Your task to perform on an android device: Open Google Maps and go to "Timeline" Image 0: 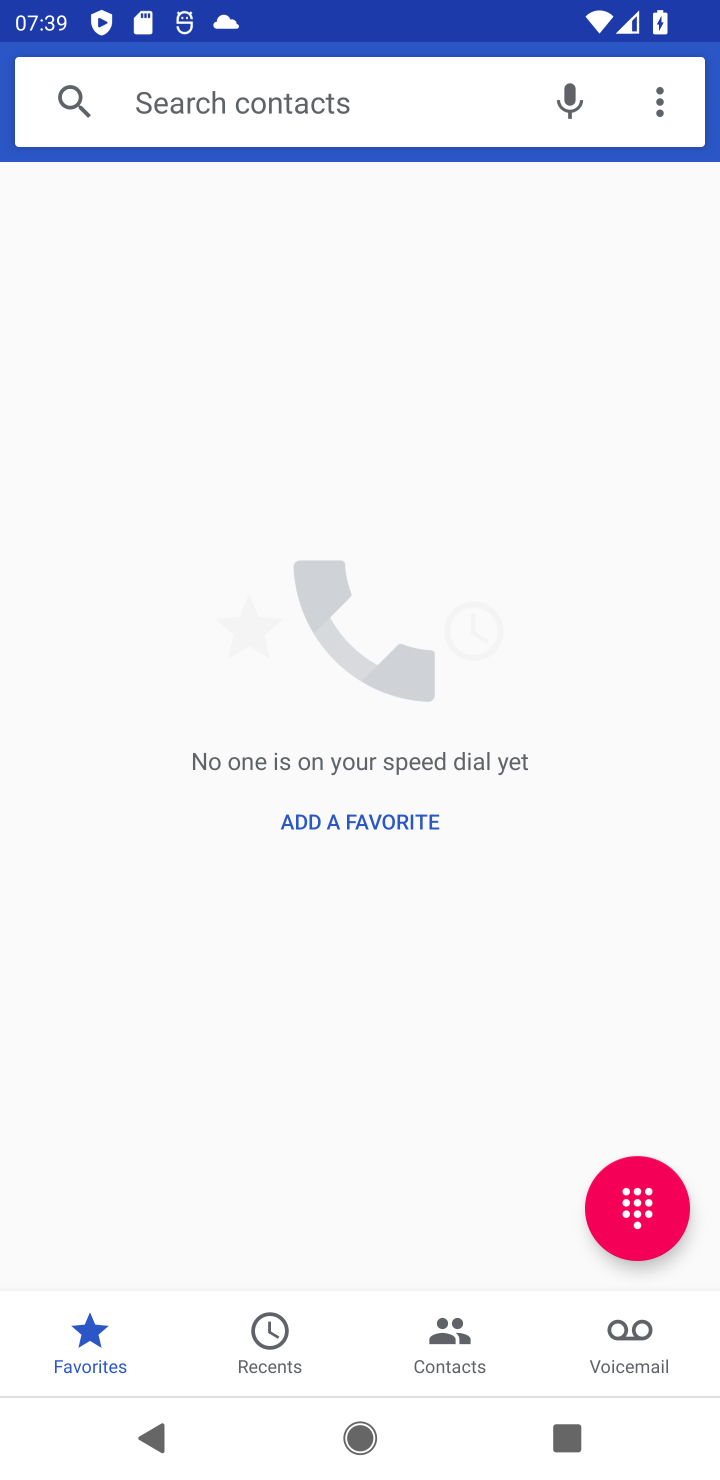
Step 0: press home button
Your task to perform on an android device: Open Google Maps and go to "Timeline" Image 1: 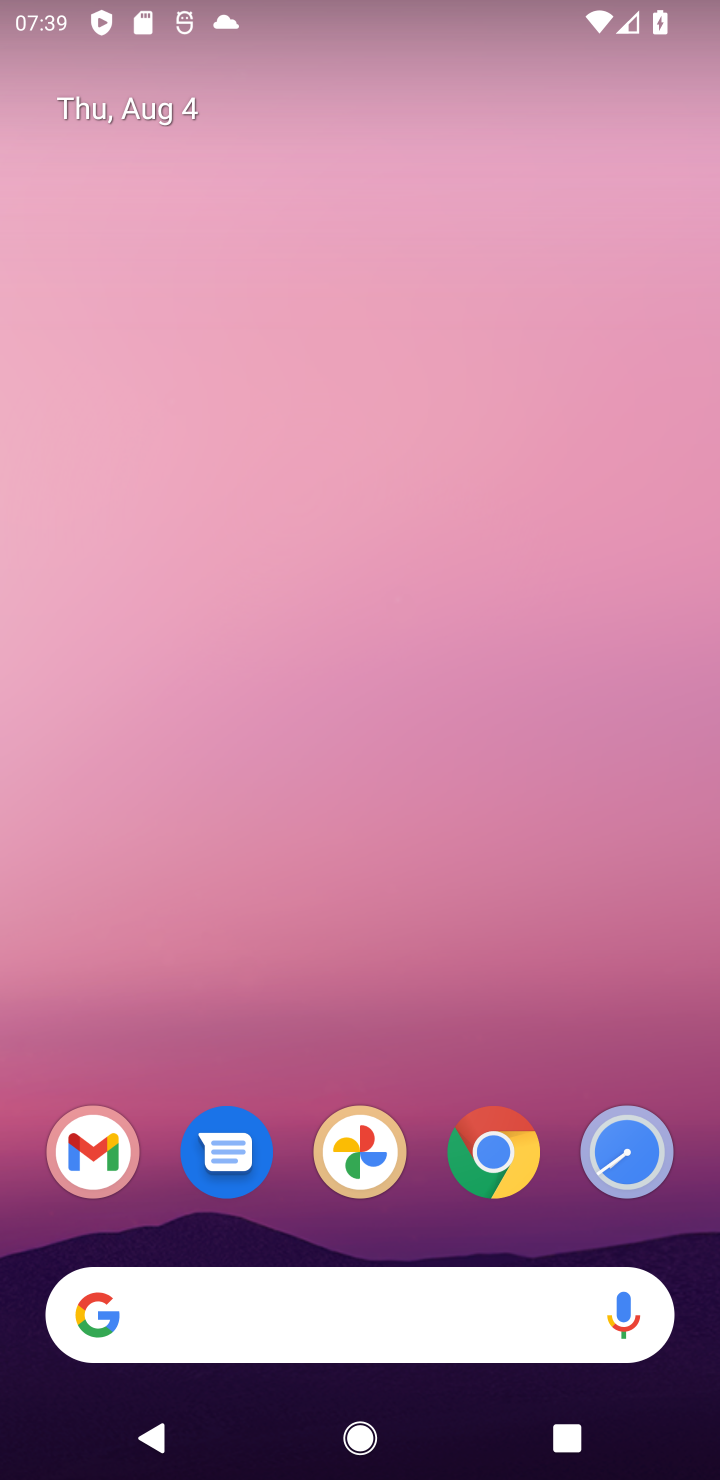
Step 1: drag from (29, 1154) to (301, 243)
Your task to perform on an android device: Open Google Maps and go to "Timeline" Image 2: 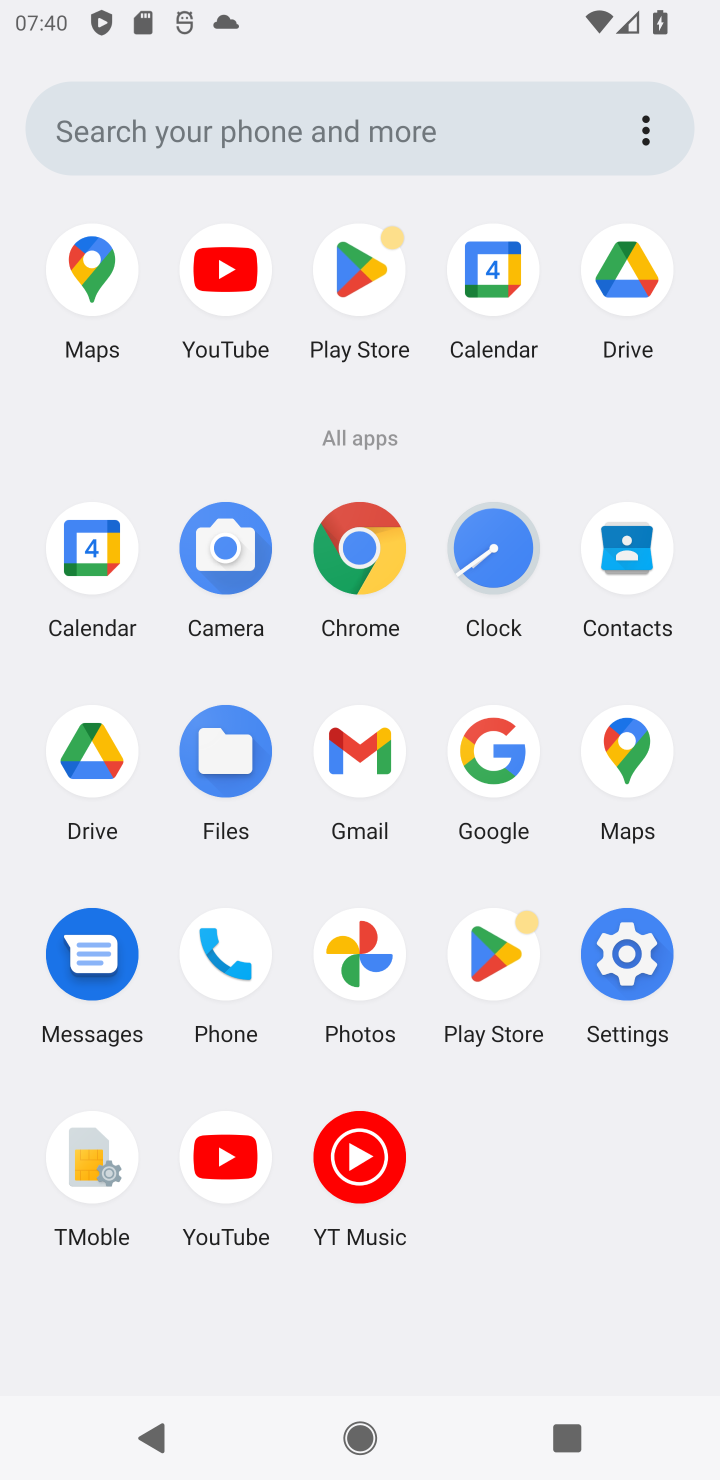
Step 2: click (631, 736)
Your task to perform on an android device: Open Google Maps and go to "Timeline" Image 3: 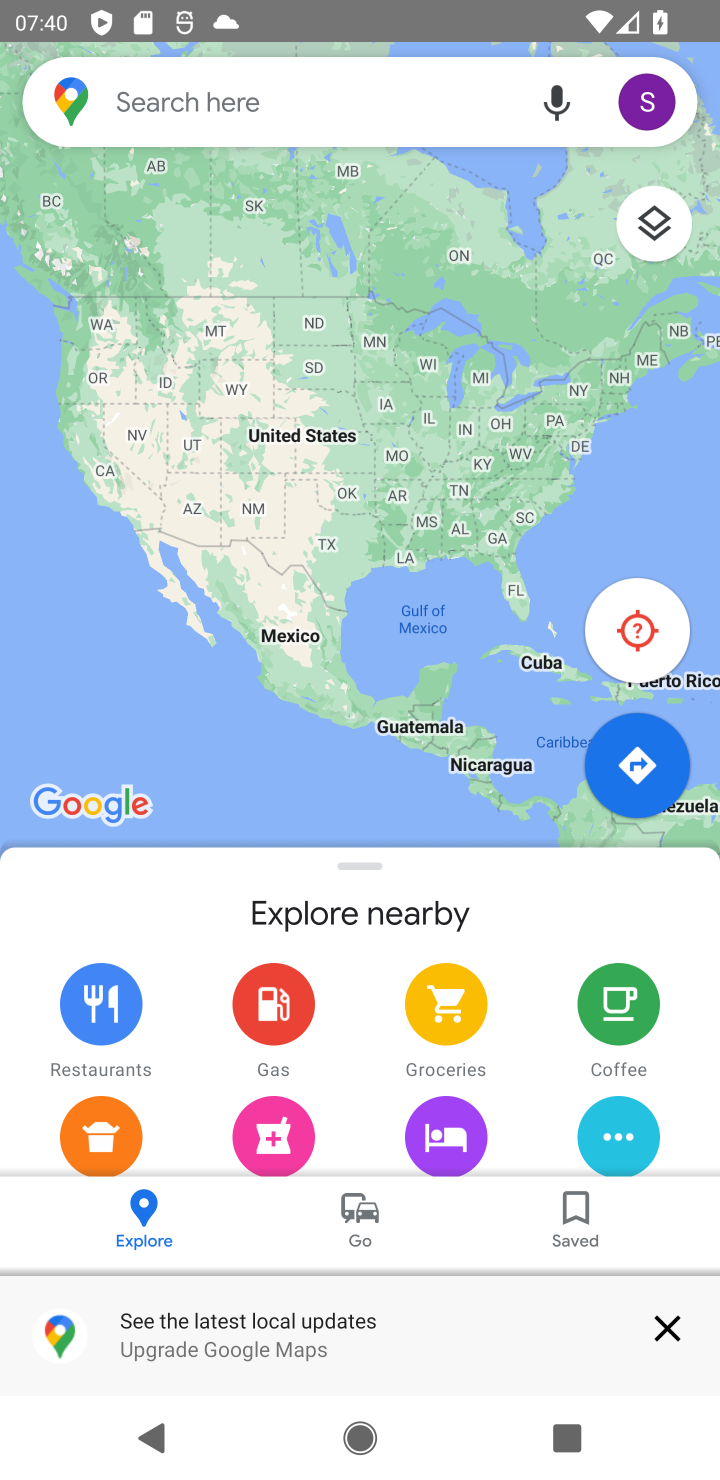
Step 3: click (661, 1336)
Your task to perform on an android device: Open Google Maps and go to "Timeline" Image 4: 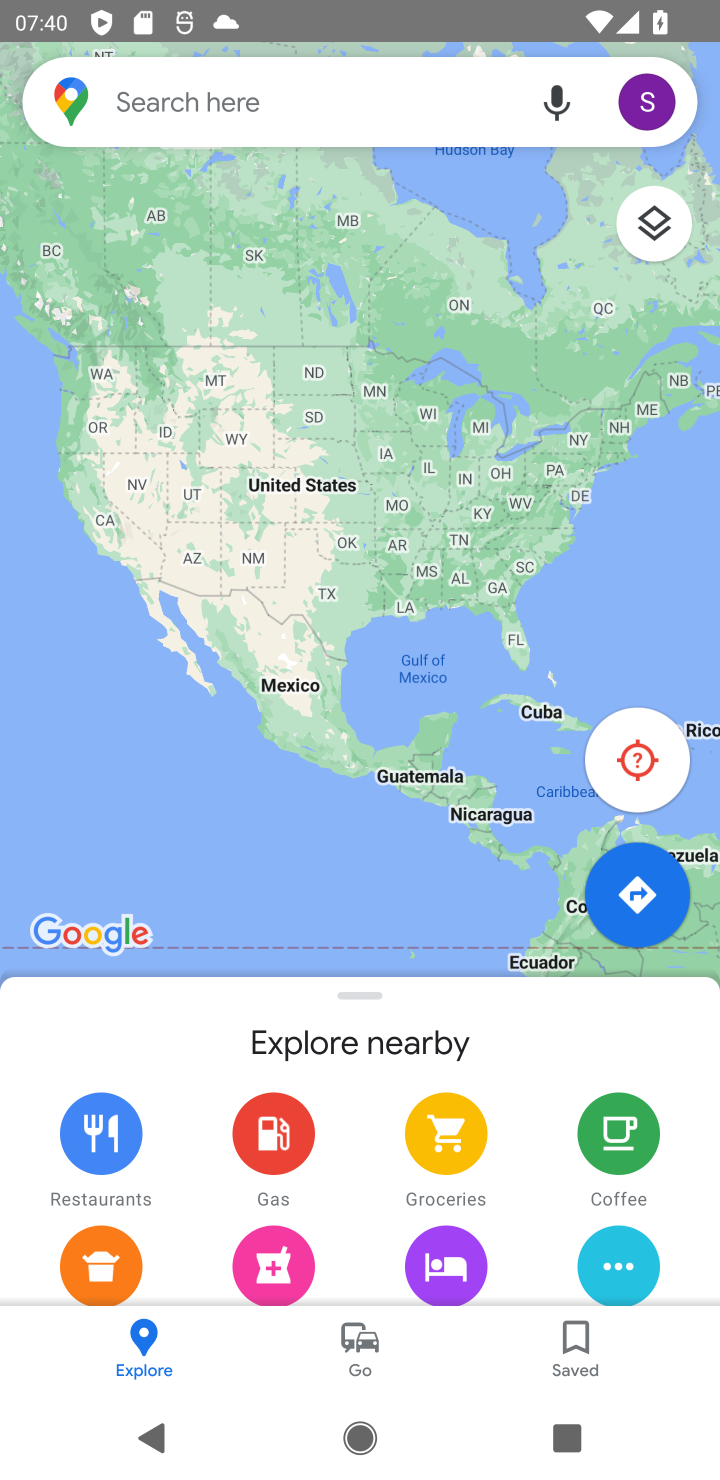
Step 4: click (170, 1451)
Your task to perform on an android device: Open Google Maps and go to "Timeline" Image 5: 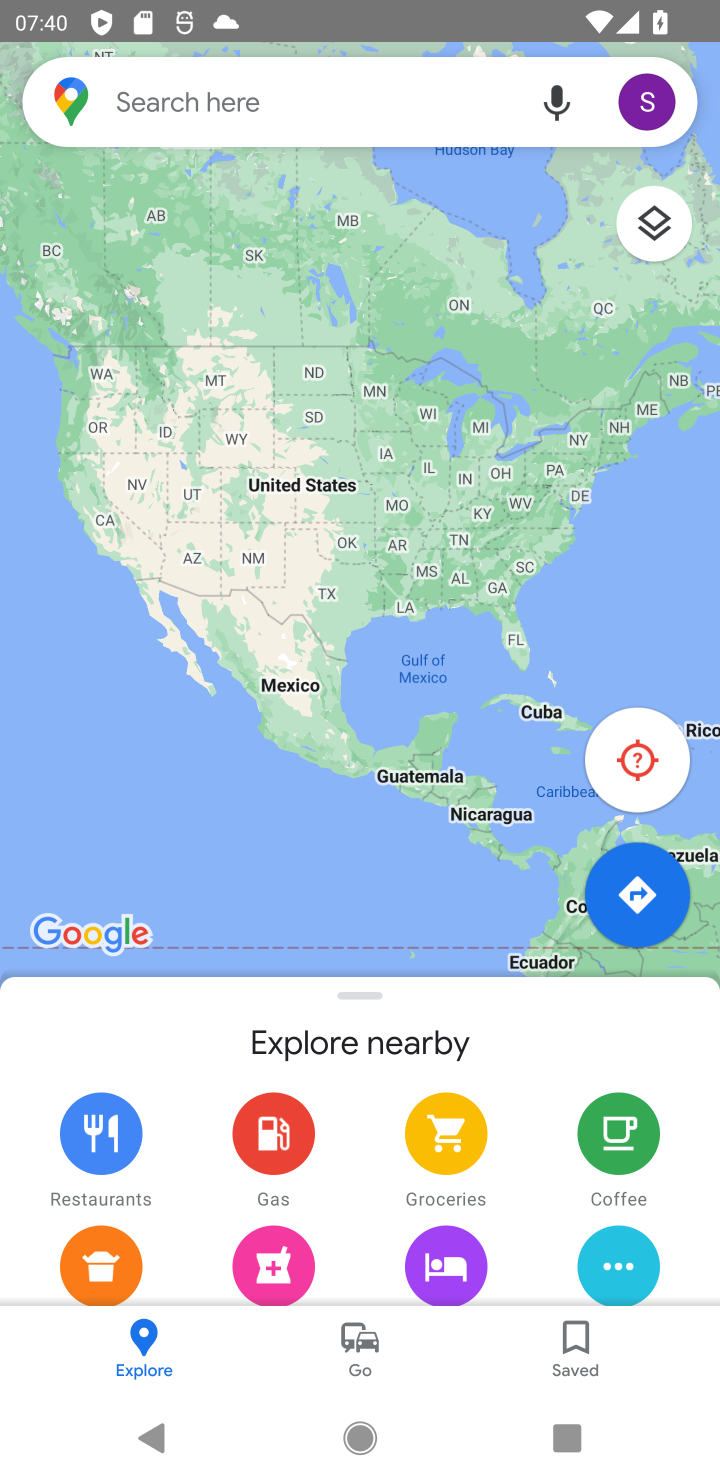
Step 5: click (164, 1449)
Your task to perform on an android device: Open Google Maps and go to "Timeline" Image 6: 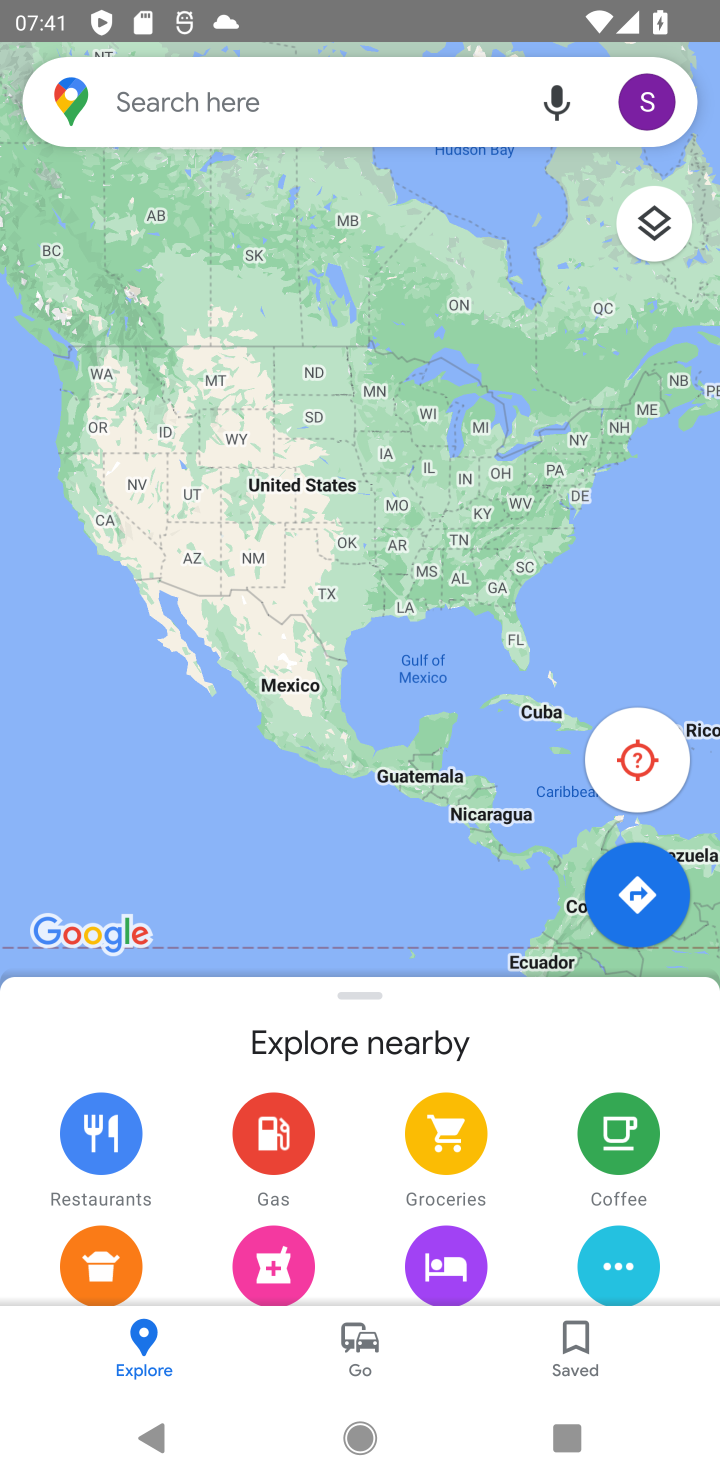
Step 6: click (169, 1444)
Your task to perform on an android device: Open Google Maps and go to "Timeline" Image 7: 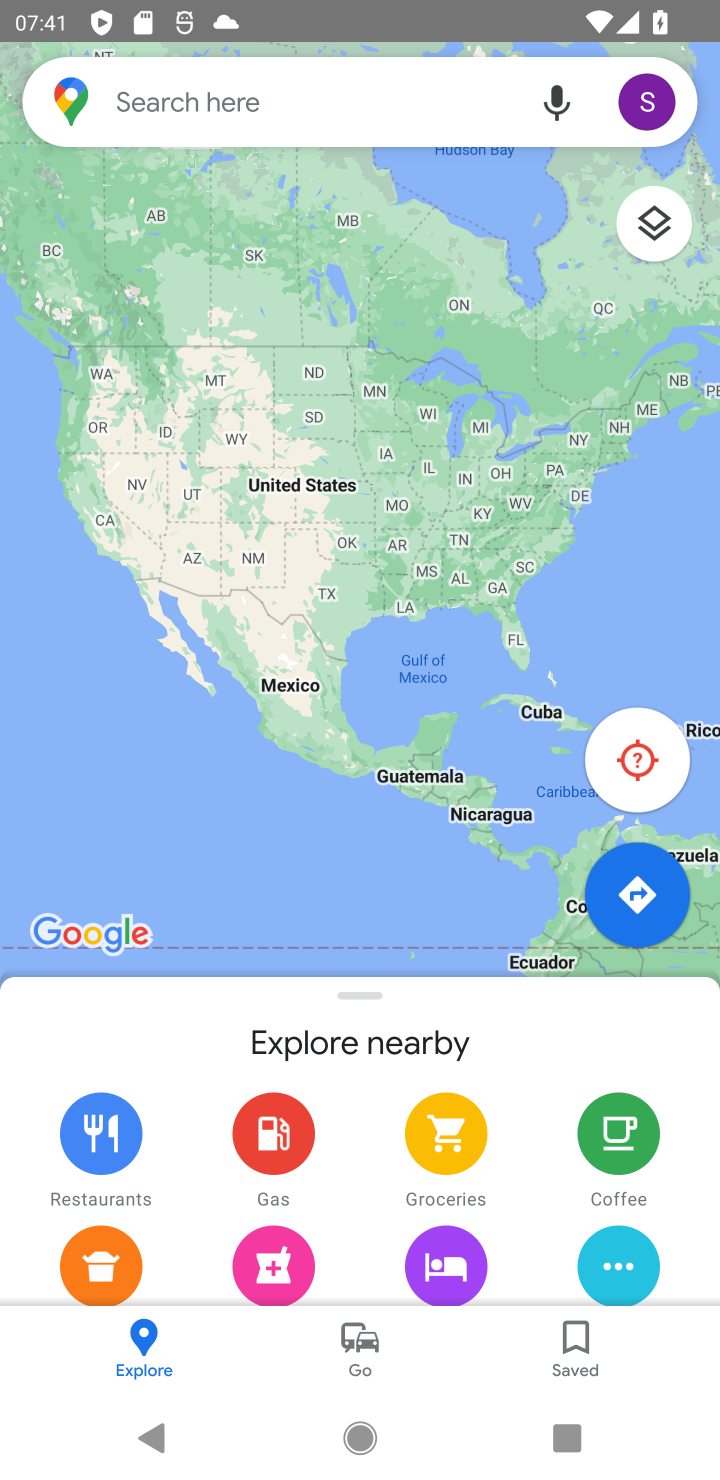
Step 7: click (156, 1454)
Your task to perform on an android device: Open Google Maps and go to "Timeline" Image 8: 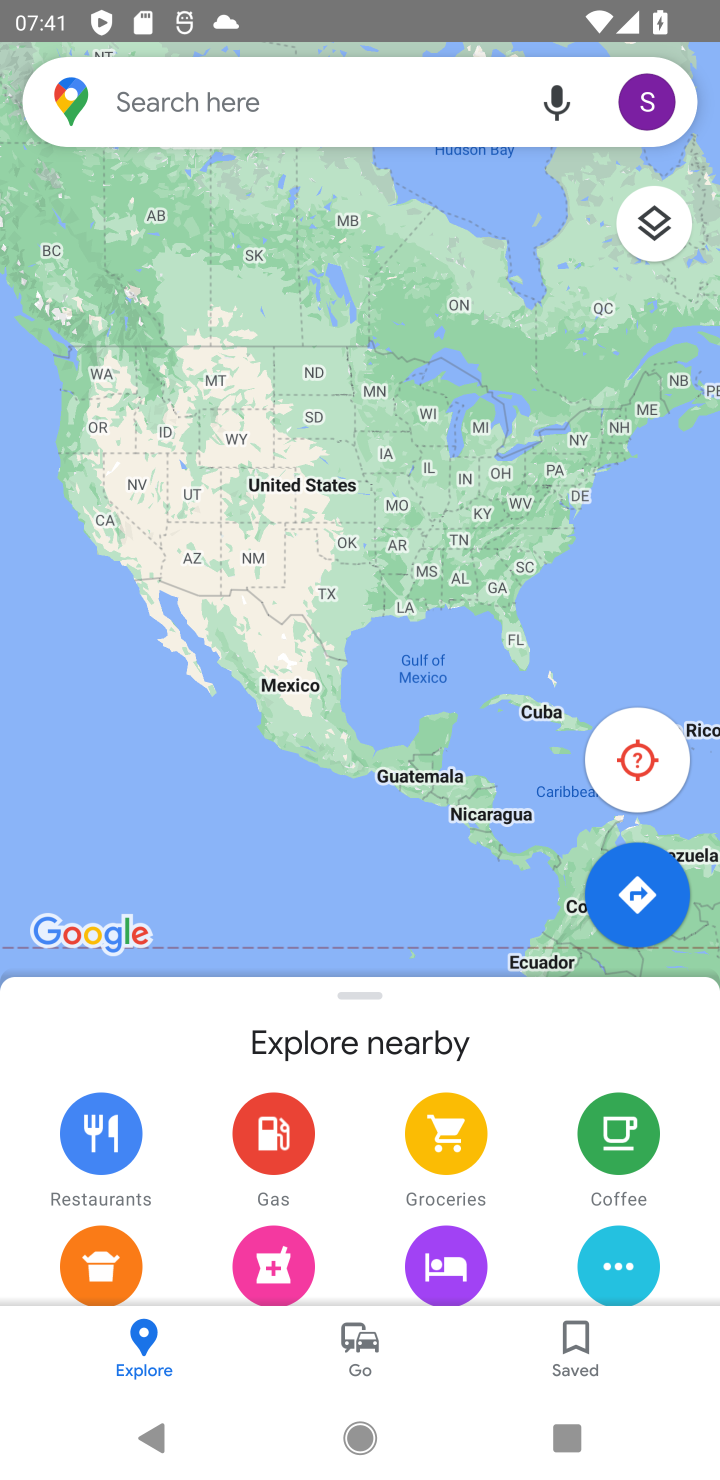
Step 8: click (156, 1454)
Your task to perform on an android device: Open Google Maps and go to "Timeline" Image 9: 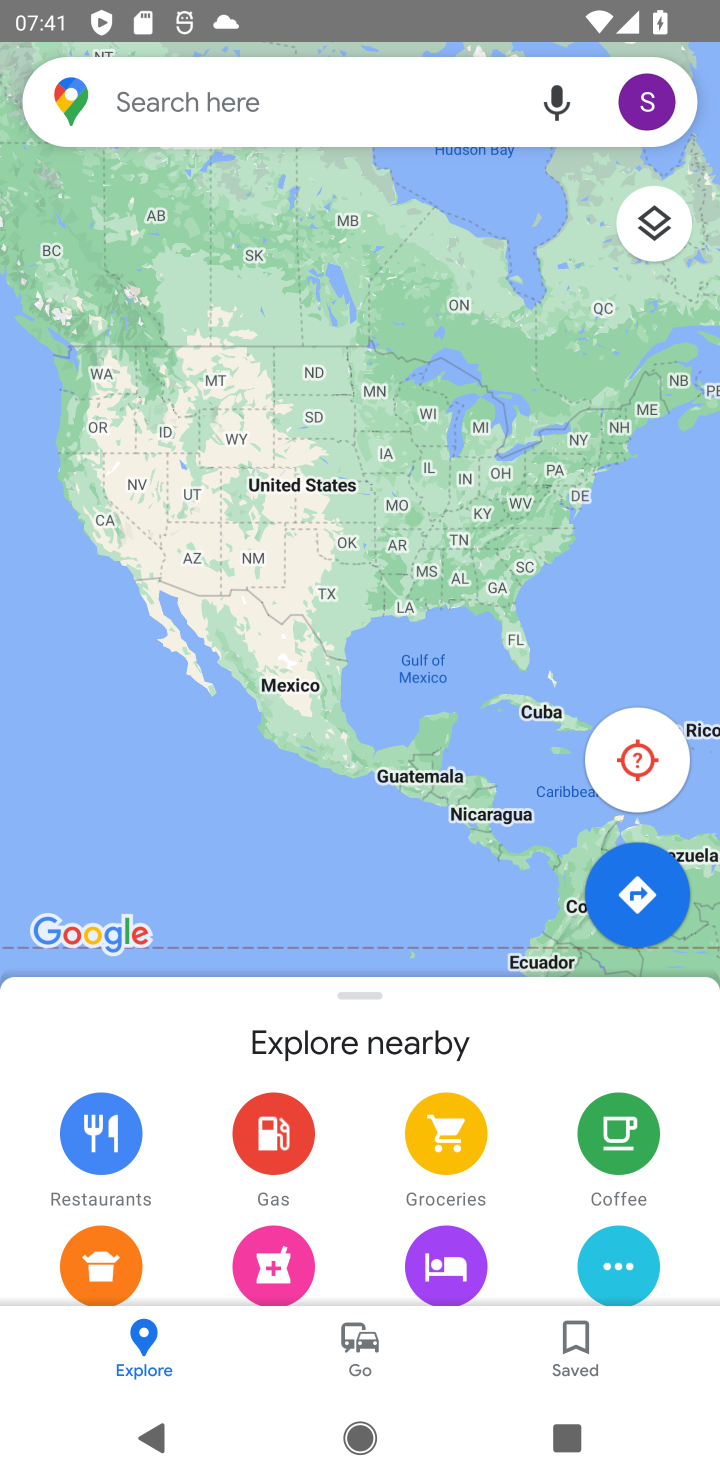
Step 9: press back button
Your task to perform on an android device: Open Google Maps and go to "Timeline" Image 10: 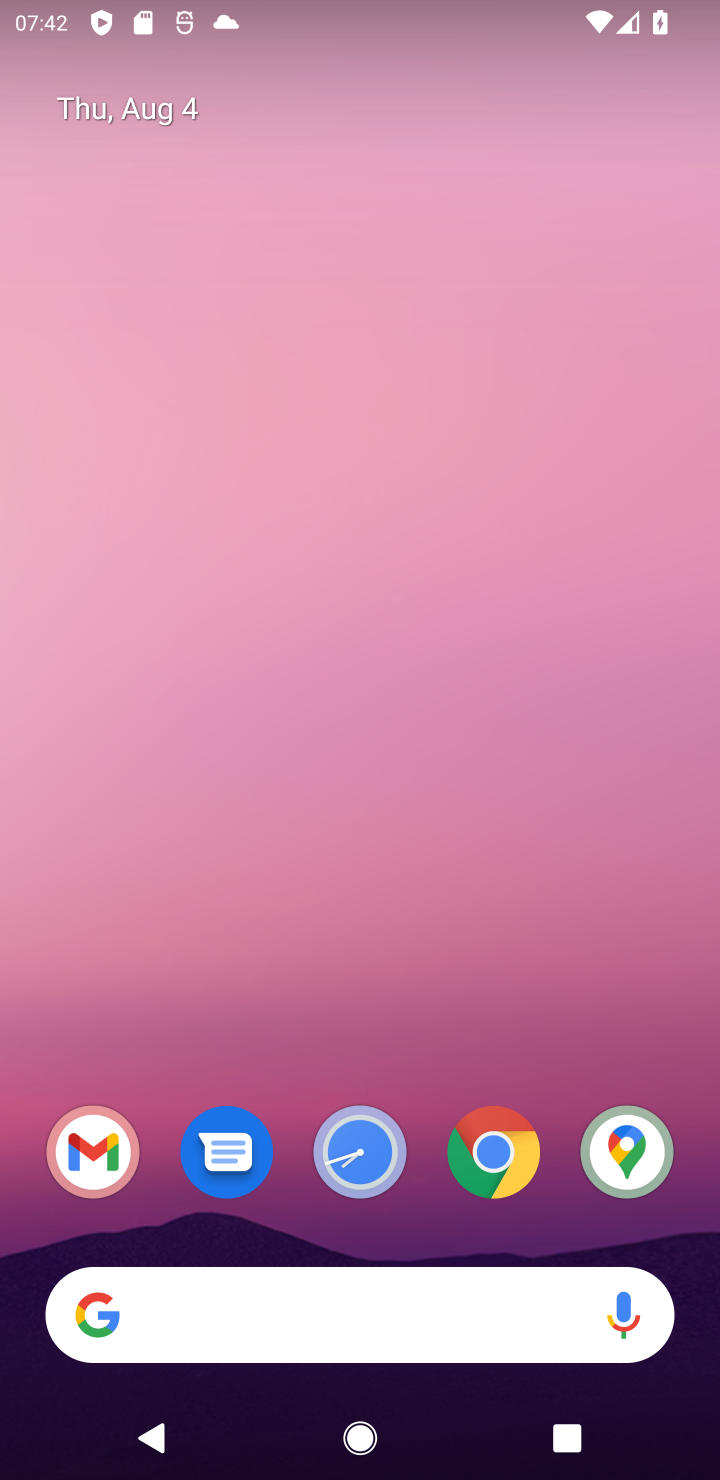
Step 10: click (604, 1137)
Your task to perform on an android device: Open Google Maps and go to "Timeline" Image 11: 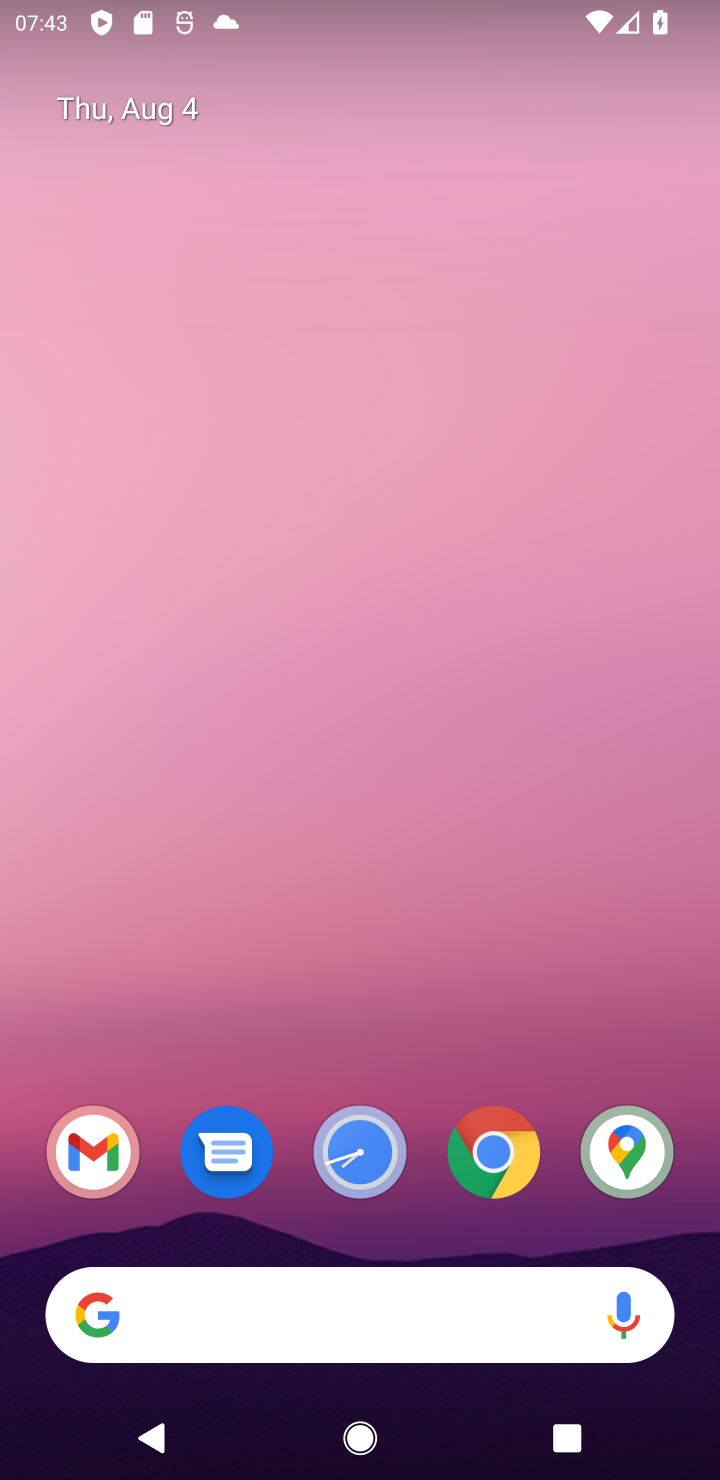
Step 11: click (628, 1139)
Your task to perform on an android device: Open Google Maps and go to "Timeline" Image 12: 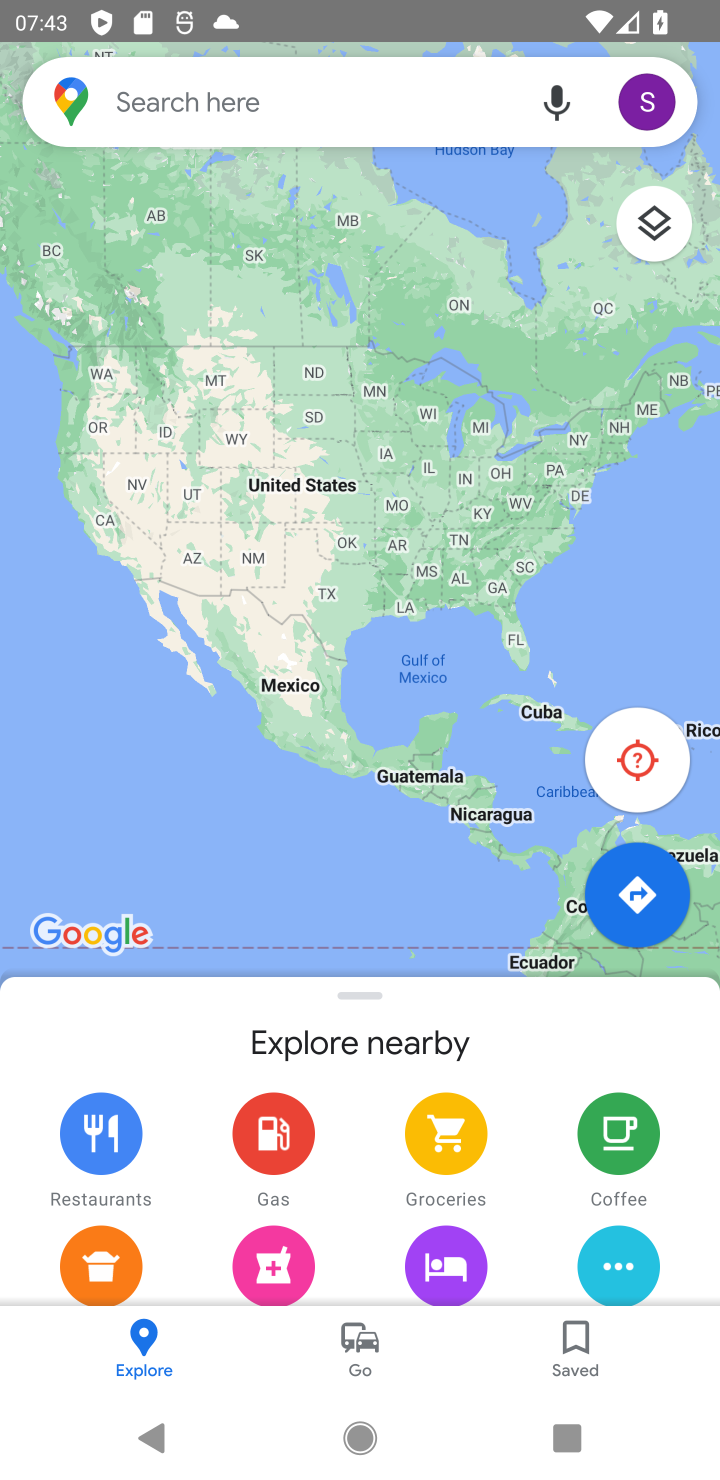
Step 12: click (652, 104)
Your task to perform on an android device: Open Google Maps and go to "Timeline" Image 13: 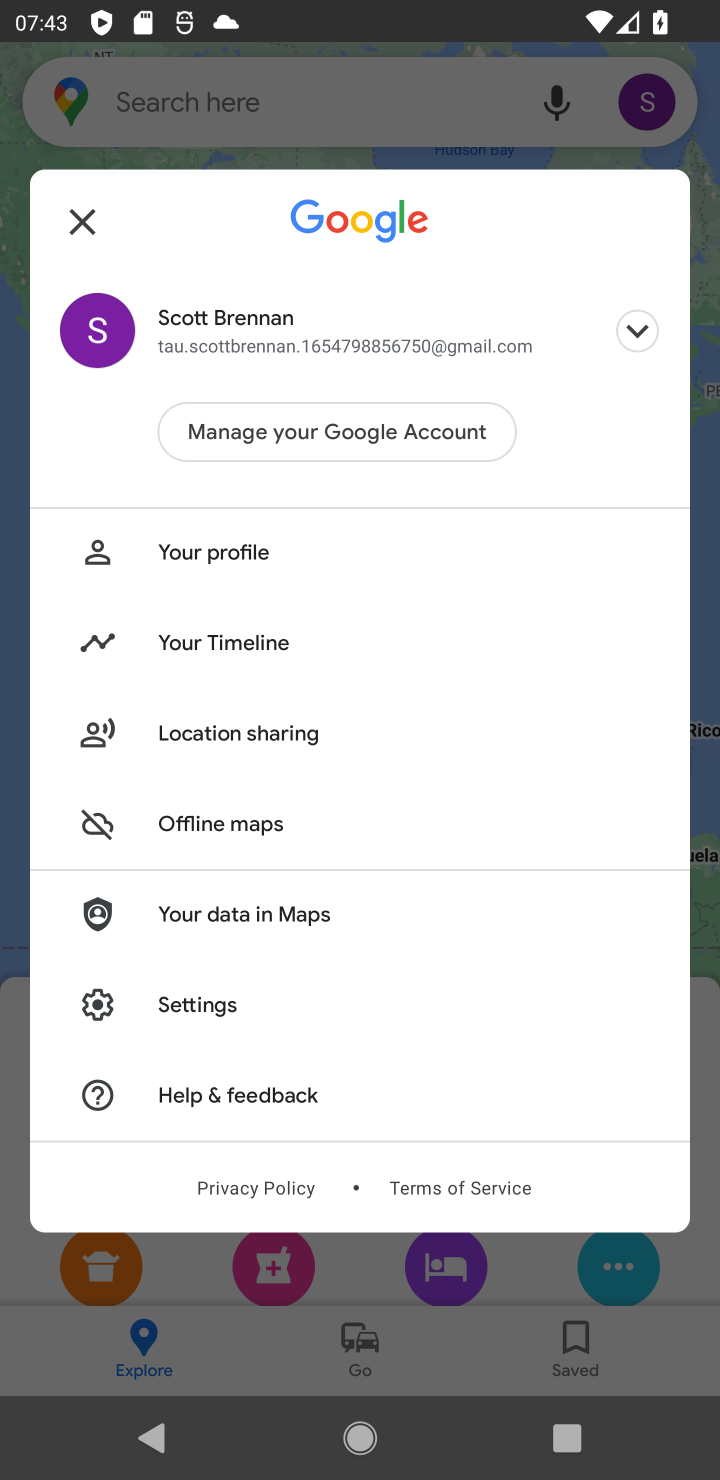
Step 13: click (221, 651)
Your task to perform on an android device: Open Google Maps and go to "Timeline" Image 14: 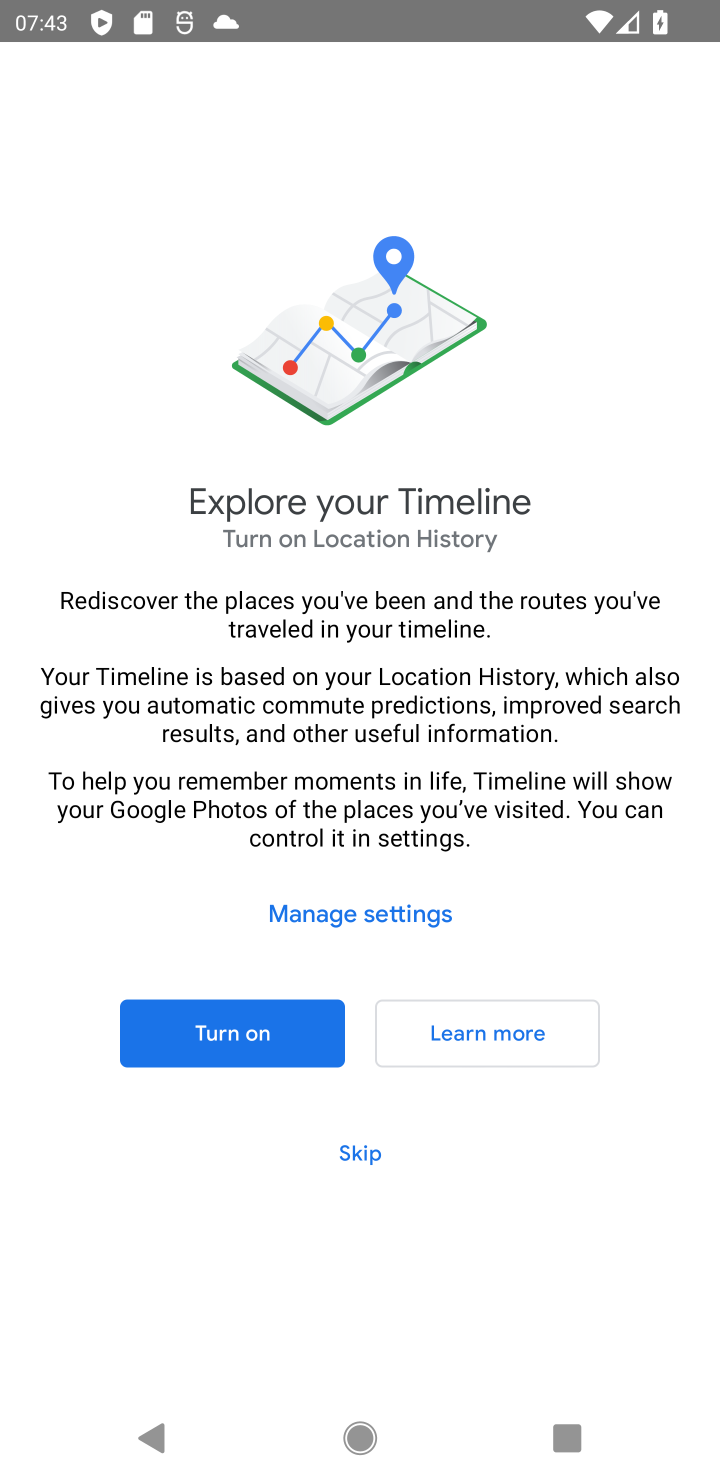
Step 14: click (372, 1148)
Your task to perform on an android device: Open Google Maps and go to "Timeline" Image 15: 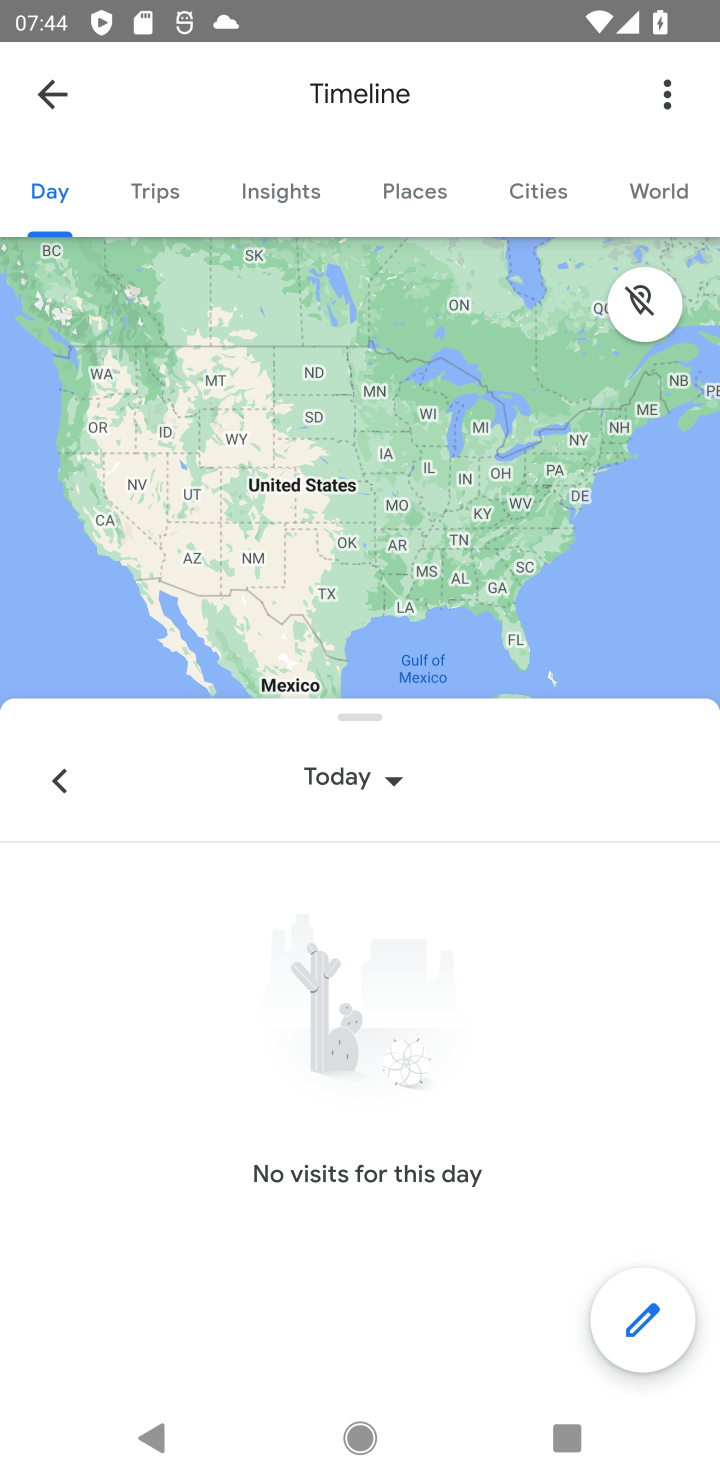
Step 15: task complete